Your task to perform on an android device: Open calendar and show me the fourth week of next month Image 0: 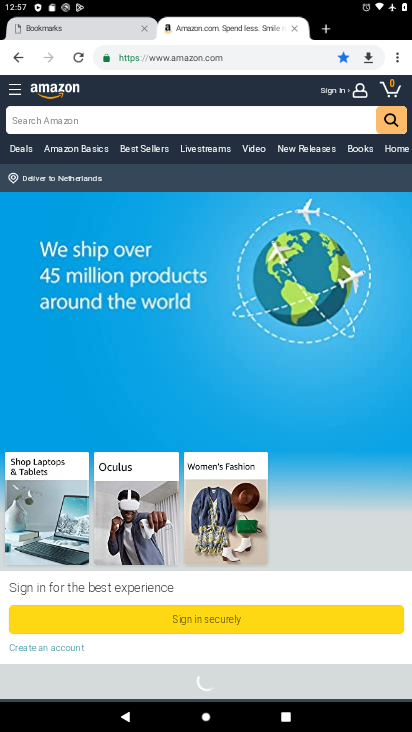
Step 0: press home button
Your task to perform on an android device: Open calendar and show me the fourth week of next month Image 1: 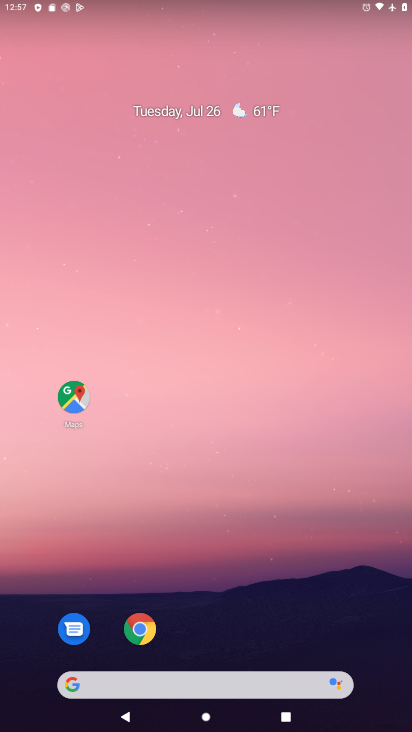
Step 1: drag from (225, 648) to (197, 65)
Your task to perform on an android device: Open calendar and show me the fourth week of next month Image 2: 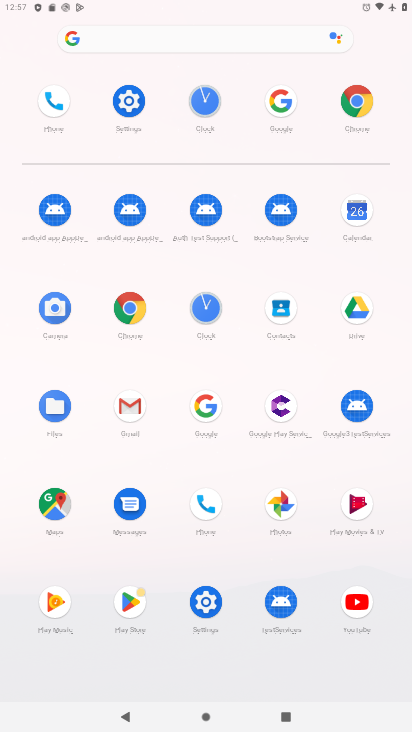
Step 2: click (365, 219)
Your task to perform on an android device: Open calendar and show me the fourth week of next month Image 3: 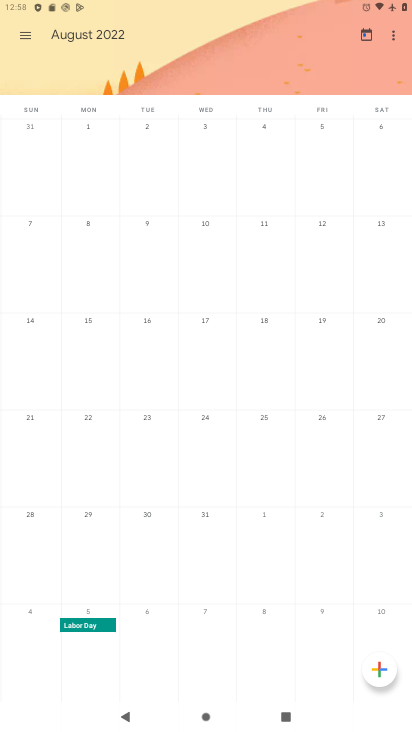
Step 3: click (21, 27)
Your task to perform on an android device: Open calendar and show me the fourth week of next month Image 4: 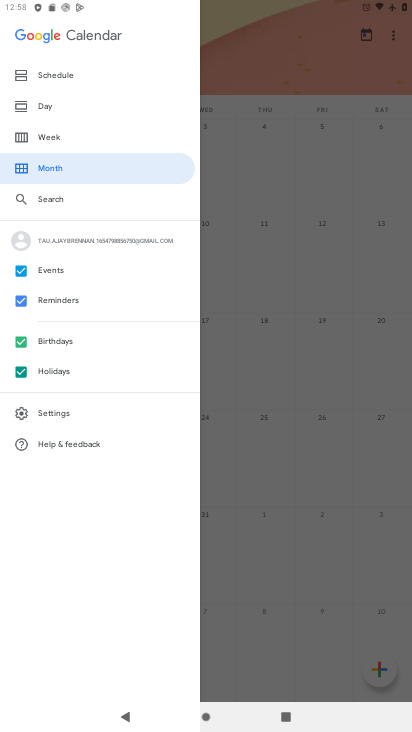
Step 4: click (41, 144)
Your task to perform on an android device: Open calendar and show me the fourth week of next month Image 5: 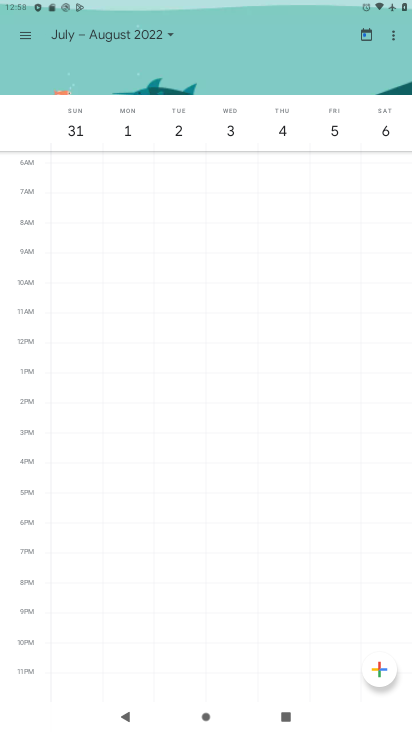
Step 5: task complete